Your task to perform on an android device: Go to calendar. Show me events next week Image 0: 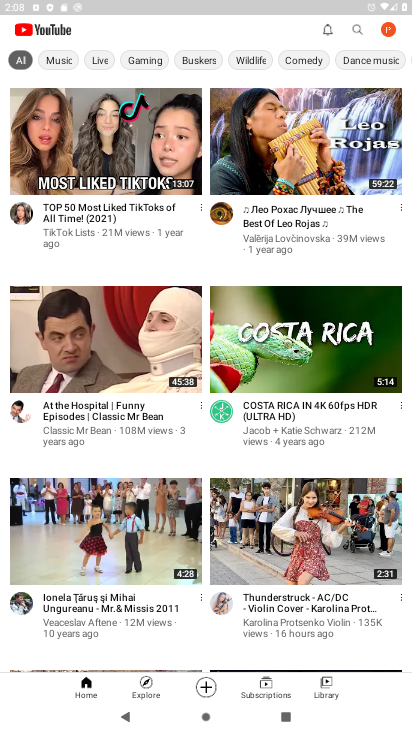
Step 0: press home button
Your task to perform on an android device: Go to calendar. Show me events next week Image 1: 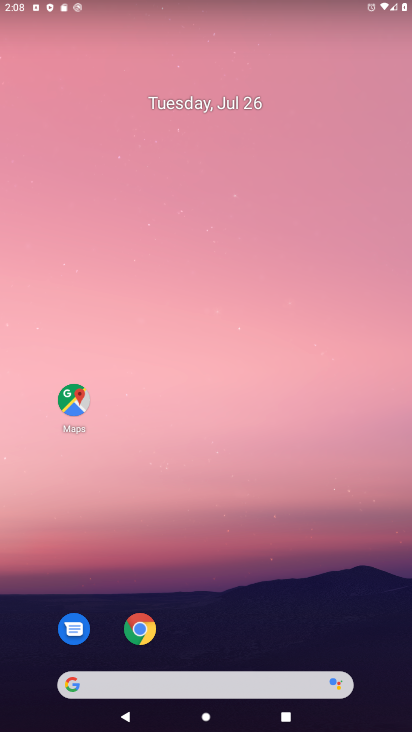
Step 1: drag from (387, 679) to (331, 185)
Your task to perform on an android device: Go to calendar. Show me events next week Image 2: 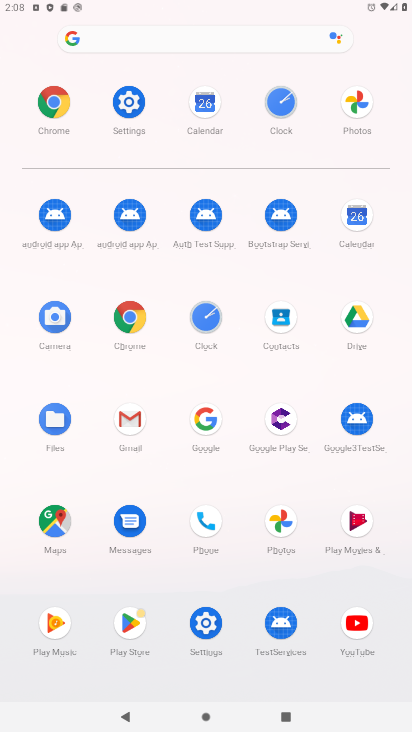
Step 2: click (357, 213)
Your task to perform on an android device: Go to calendar. Show me events next week Image 3: 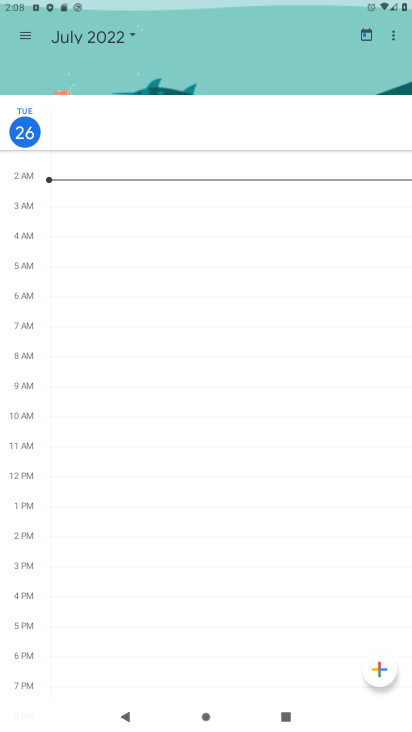
Step 3: click (24, 36)
Your task to perform on an android device: Go to calendar. Show me events next week Image 4: 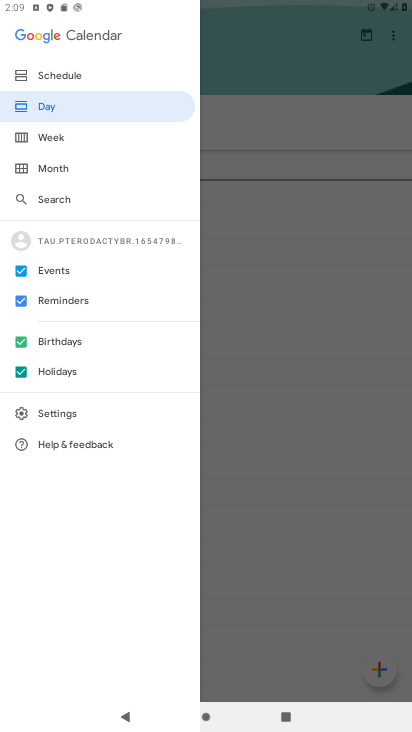
Step 4: click (55, 134)
Your task to perform on an android device: Go to calendar. Show me events next week Image 5: 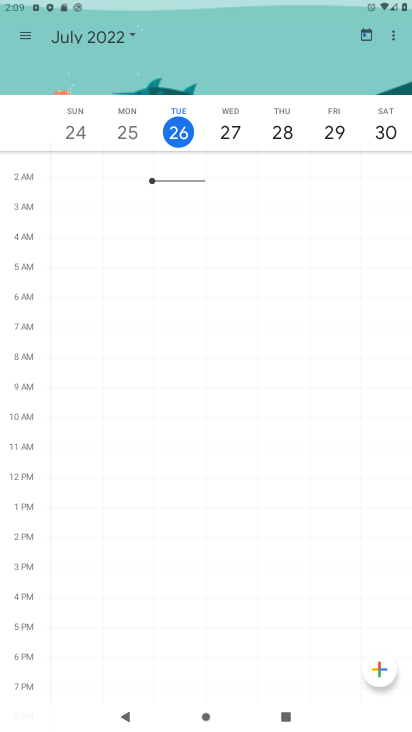
Step 5: click (130, 34)
Your task to perform on an android device: Go to calendar. Show me events next week Image 6: 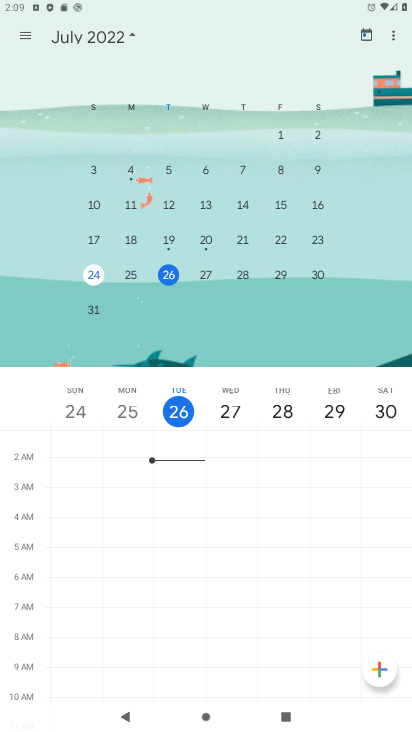
Step 6: click (92, 307)
Your task to perform on an android device: Go to calendar. Show me events next week Image 7: 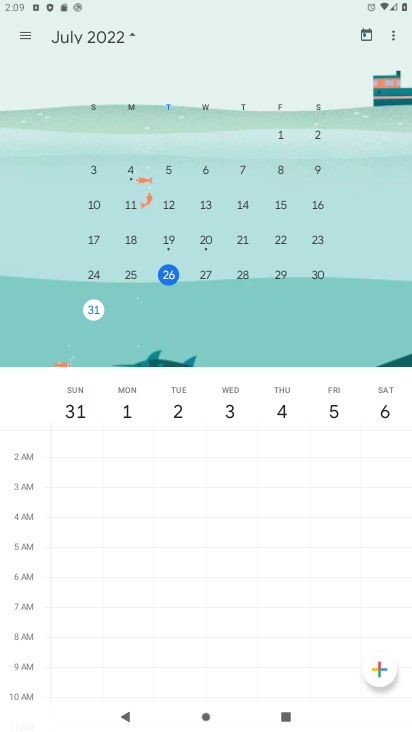
Step 7: task complete